Your task to perform on an android device: check battery use Image 0: 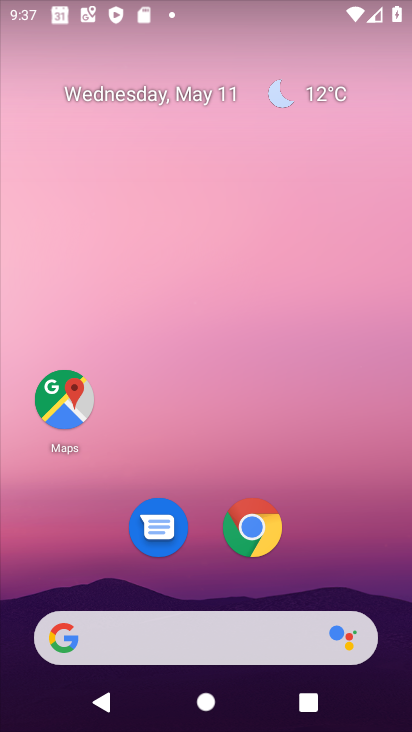
Step 0: drag from (367, 566) to (366, 71)
Your task to perform on an android device: check battery use Image 1: 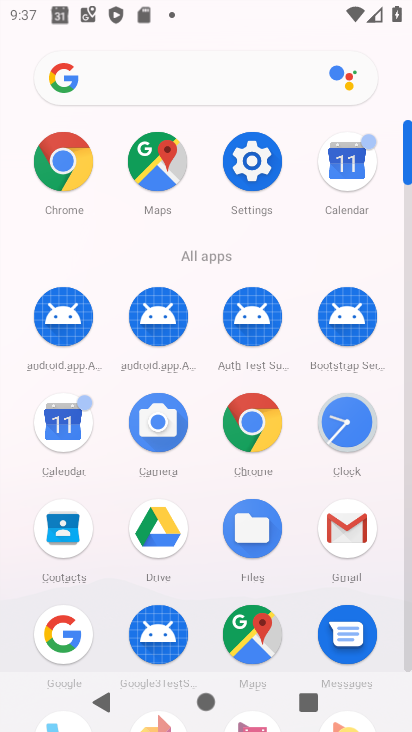
Step 1: click (241, 150)
Your task to perform on an android device: check battery use Image 2: 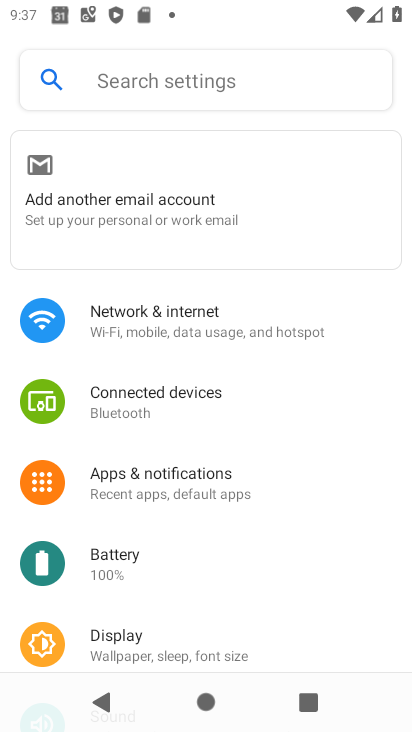
Step 2: click (134, 544)
Your task to perform on an android device: check battery use Image 3: 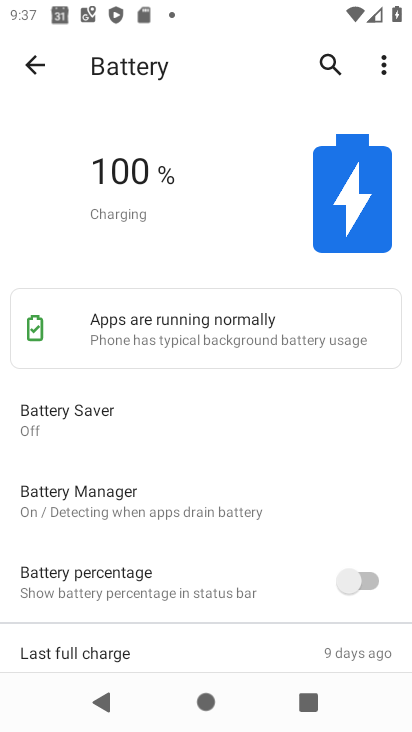
Step 3: task complete